Your task to perform on an android device: Is it going to rain tomorrow? Image 0: 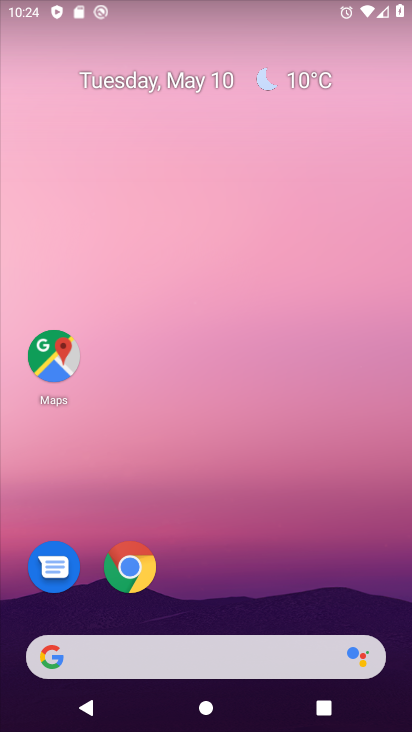
Step 0: click (314, 84)
Your task to perform on an android device: Is it going to rain tomorrow? Image 1: 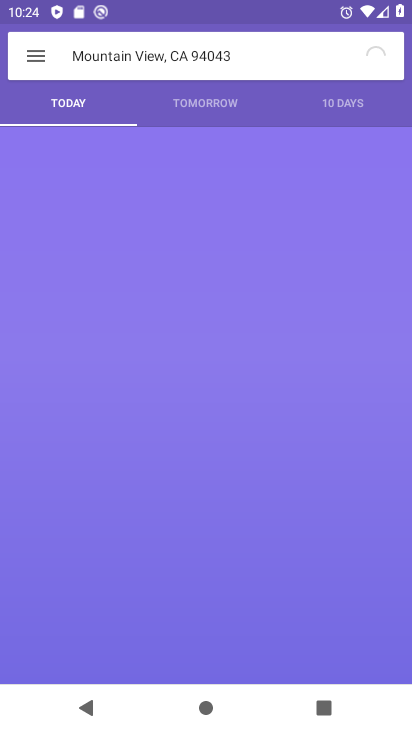
Step 1: click (205, 111)
Your task to perform on an android device: Is it going to rain tomorrow? Image 2: 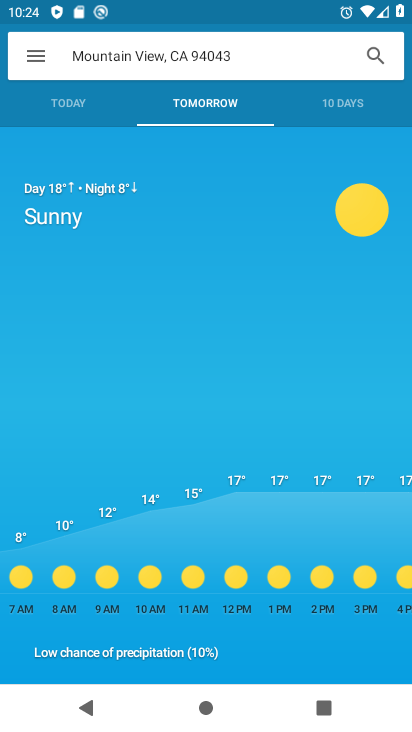
Step 2: task complete